Your task to perform on an android device: move a message to another label in the gmail app Image 0: 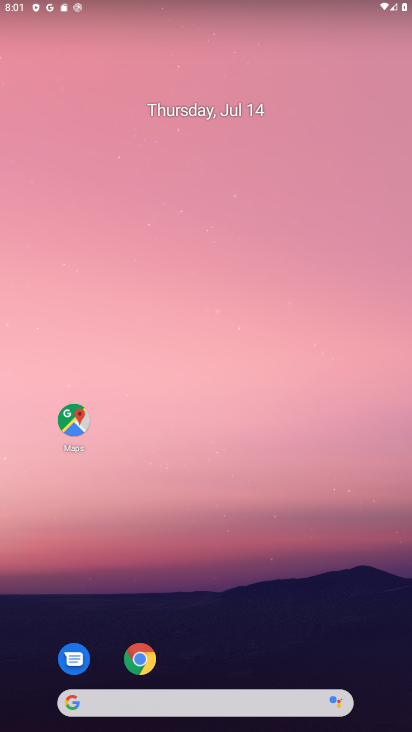
Step 0: drag from (194, 567) to (79, 150)
Your task to perform on an android device: move a message to another label in the gmail app Image 1: 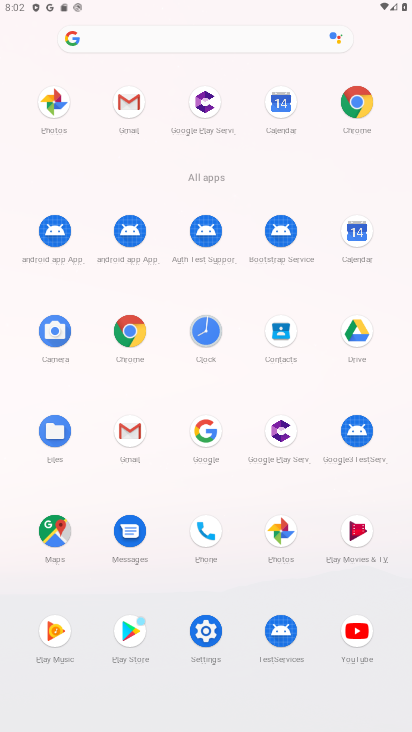
Step 1: click (130, 120)
Your task to perform on an android device: move a message to another label in the gmail app Image 2: 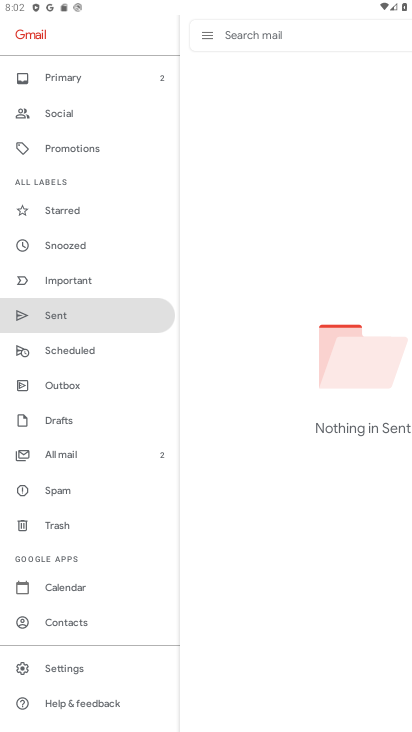
Step 2: click (66, 453)
Your task to perform on an android device: move a message to another label in the gmail app Image 3: 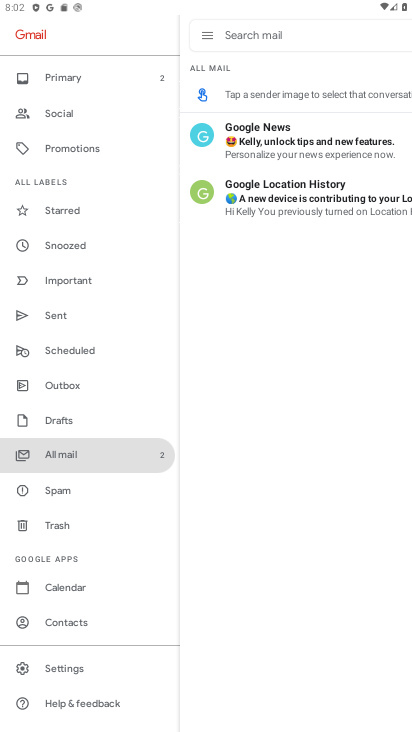
Step 3: click (249, 140)
Your task to perform on an android device: move a message to another label in the gmail app Image 4: 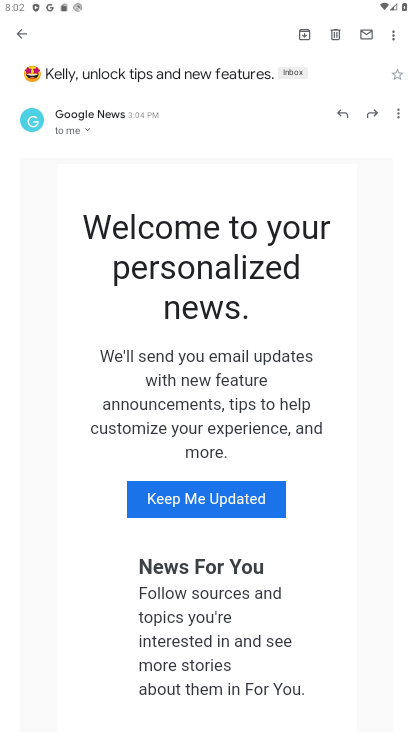
Step 4: click (297, 69)
Your task to perform on an android device: move a message to another label in the gmail app Image 5: 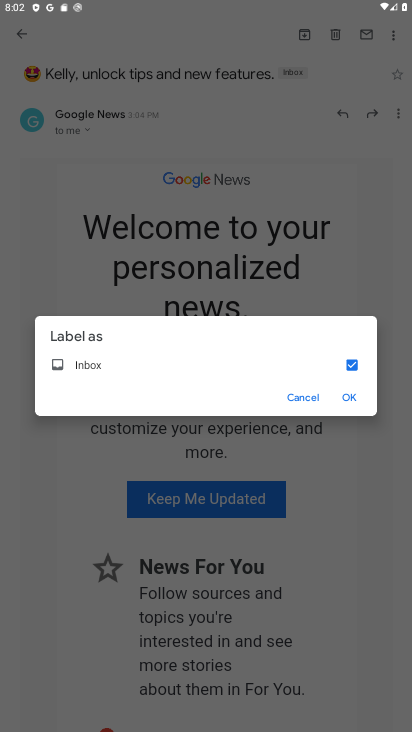
Step 5: click (355, 370)
Your task to perform on an android device: move a message to another label in the gmail app Image 6: 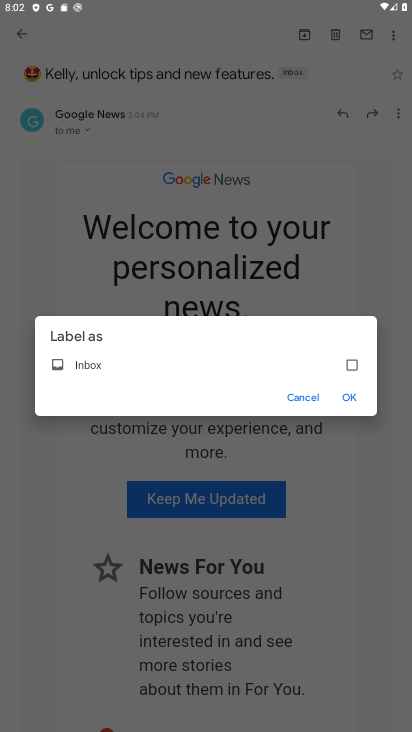
Step 6: click (349, 398)
Your task to perform on an android device: move a message to another label in the gmail app Image 7: 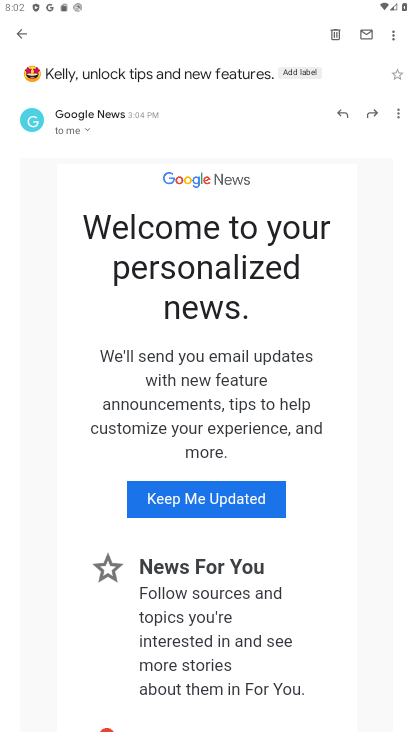
Step 7: task complete